Your task to perform on an android device: Go to network settings Image 0: 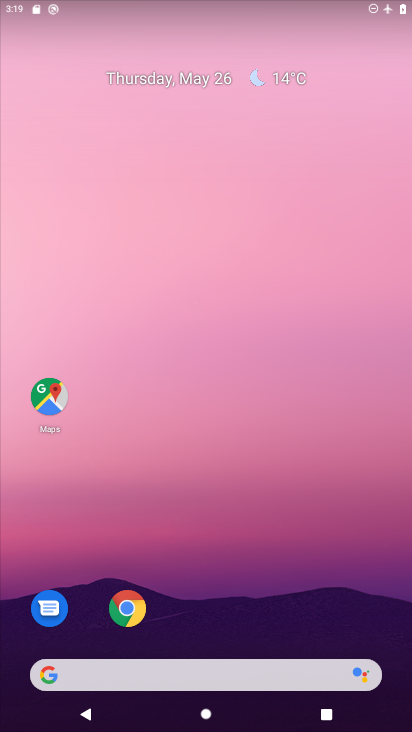
Step 0: drag from (322, 534) to (363, 109)
Your task to perform on an android device: Go to network settings Image 1: 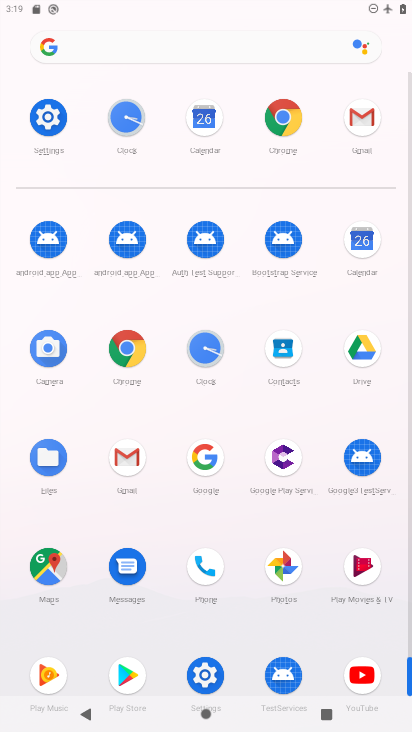
Step 1: click (37, 113)
Your task to perform on an android device: Go to network settings Image 2: 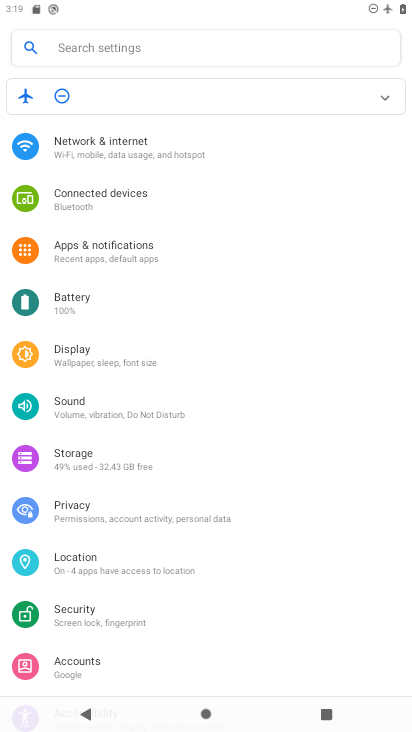
Step 2: click (79, 147)
Your task to perform on an android device: Go to network settings Image 3: 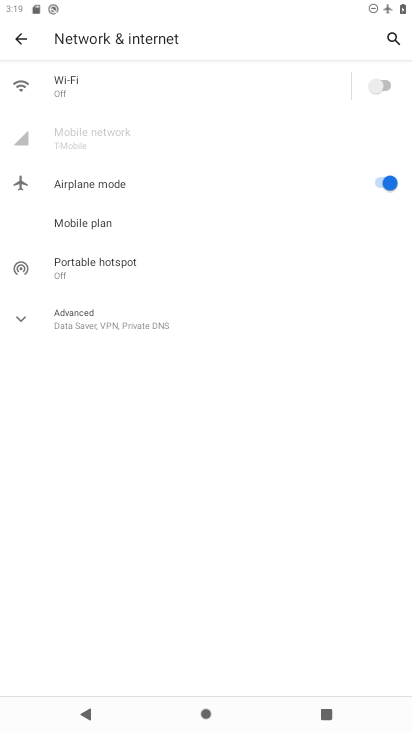
Step 3: task complete